Your task to perform on an android device: uninstall "Fetch Rewards" Image 0: 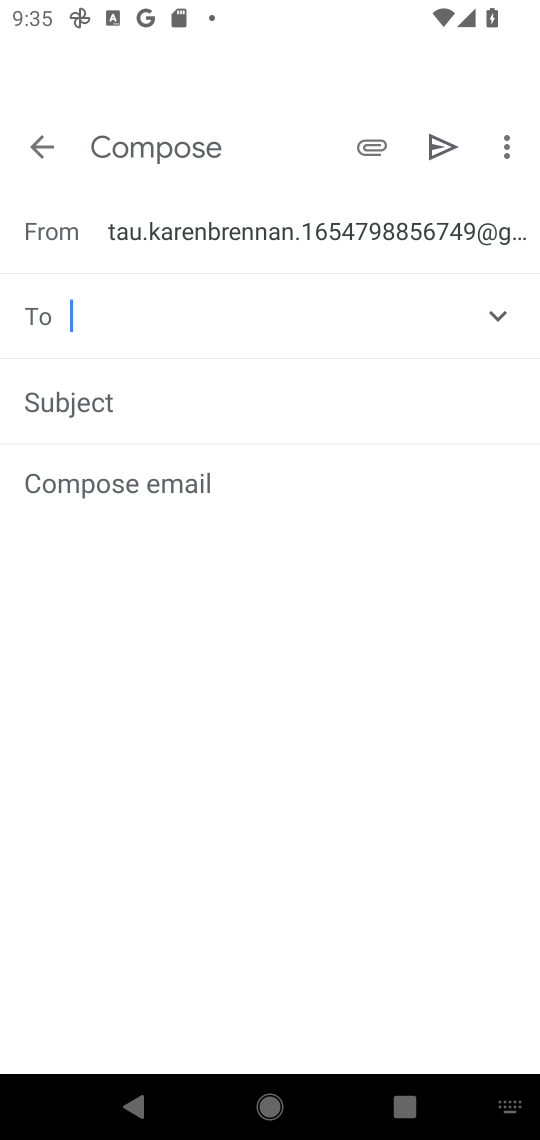
Step 0: press home button
Your task to perform on an android device: uninstall "Fetch Rewards" Image 1: 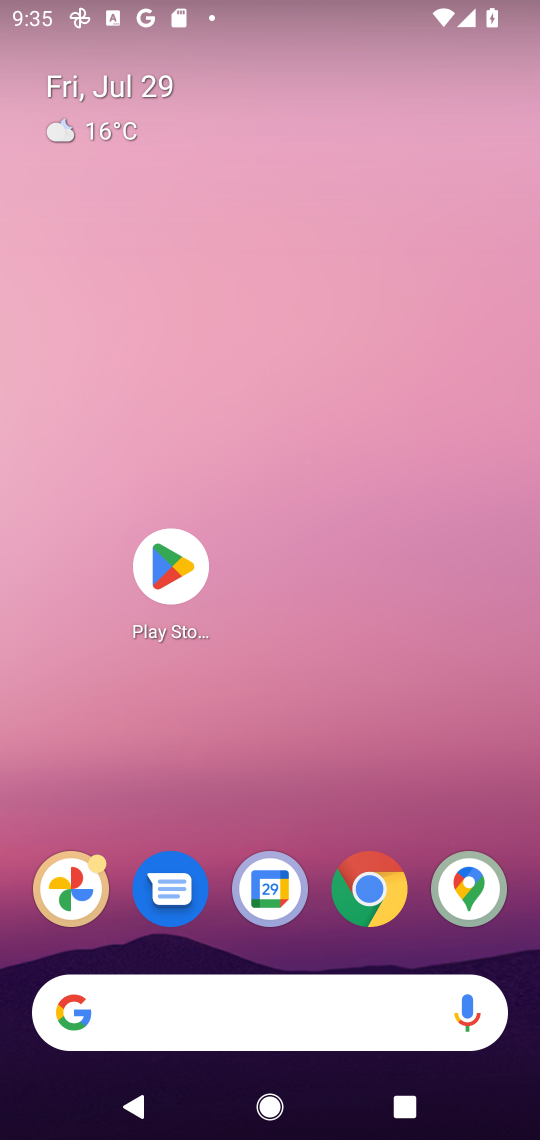
Step 1: click (165, 561)
Your task to perform on an android device: uninstall "Fetch Rewards" Image 2: 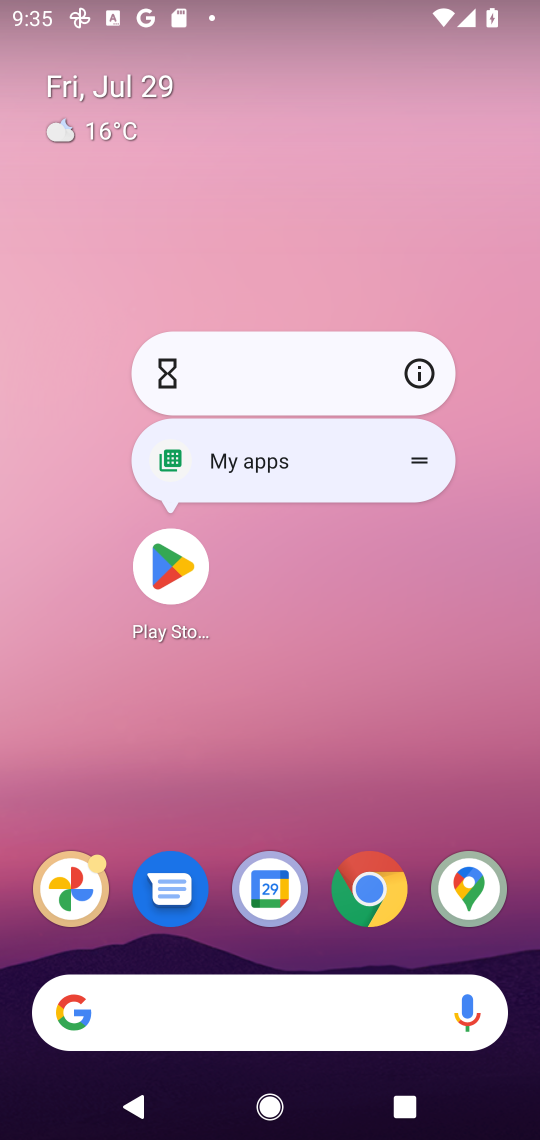
Step 2: click (176, 565)
Your task to perform on an android device: uninstall "Fetch Rewards" Image 3: 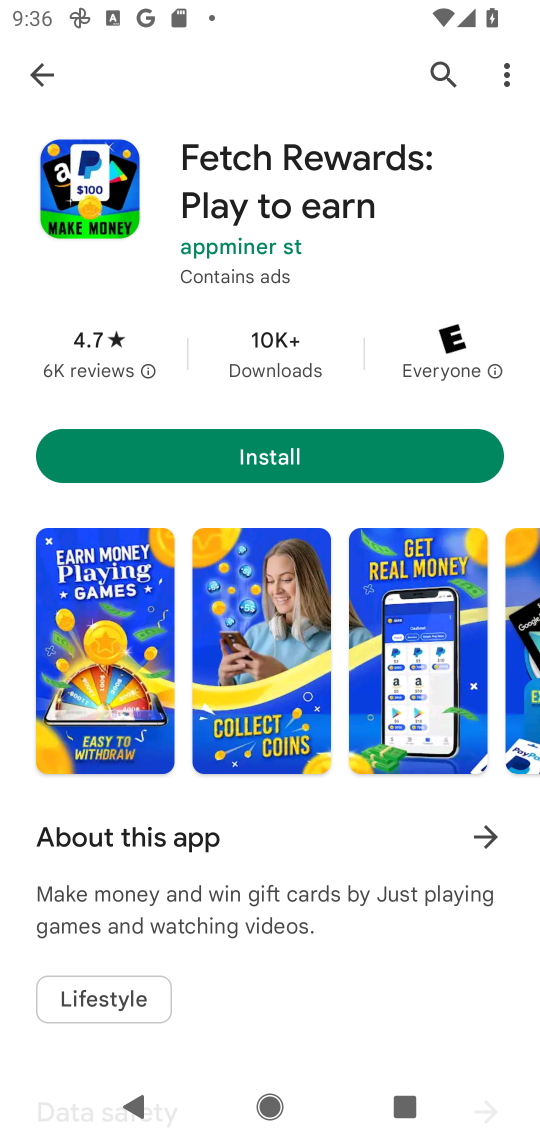
Step 3: task complete